Your task to perform on an android device: Open internet settings Image 0: 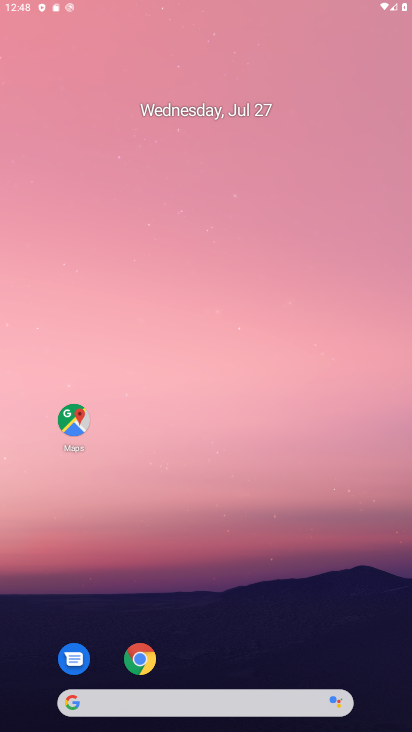
Step 0: click (257, 5)
Your task to perform on an android device: Open internet settings Image 1: 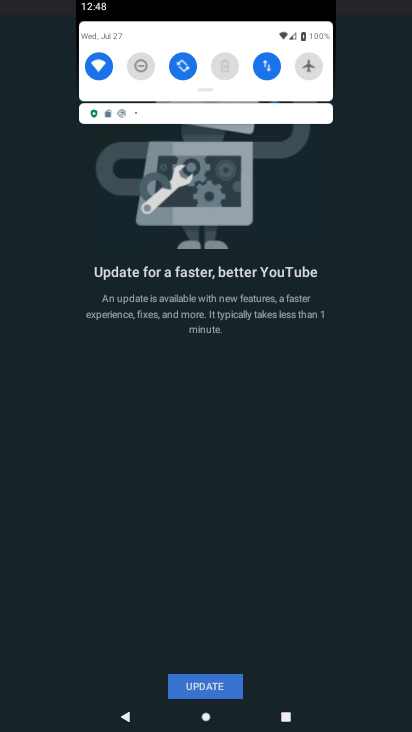
Step 1: press home button
Your task to perform on an android device: Open internet settings Image 2: 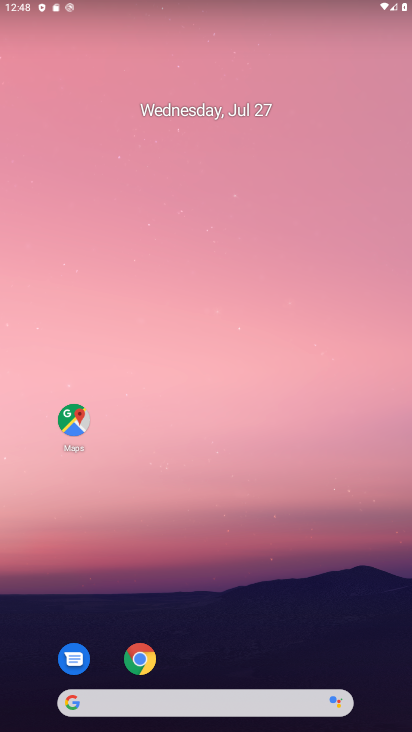
Step 2: drag from (256, 623) to (138, 30)
Your task to perform on an android device: Open internet settings Image 3: 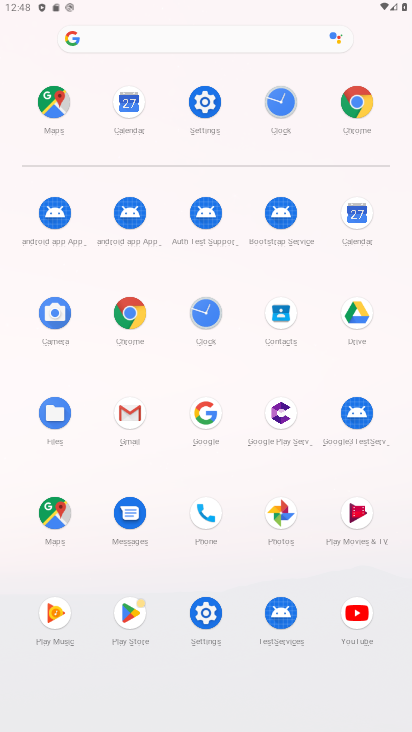
Step 3: click (214, 101)
Your task to perform on an android device: Open internet settings Image 4: 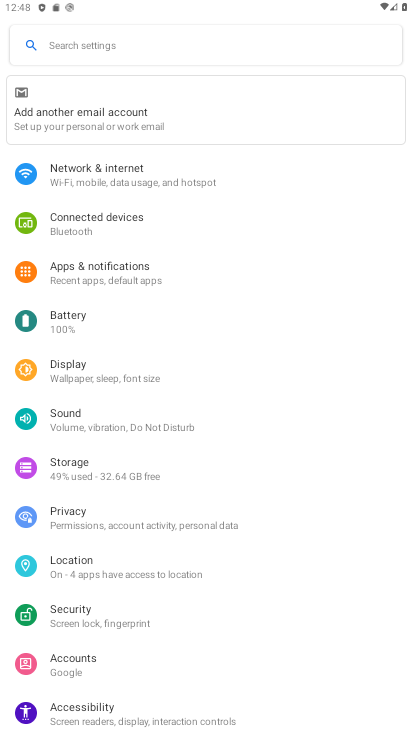
Step 4: click (104, 172)
Your task to perform on an android device: Open internet settings Image 5: 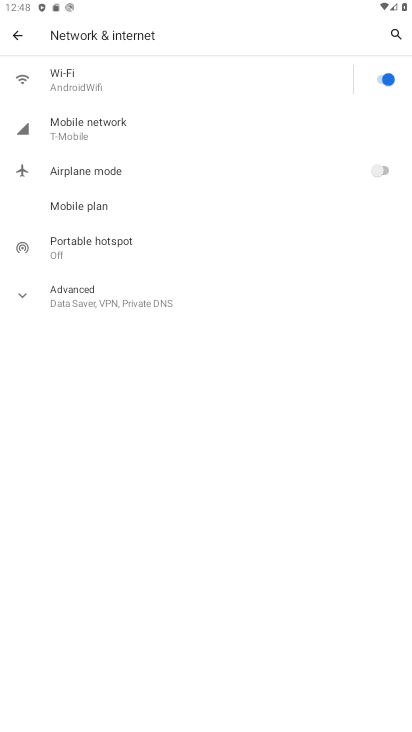
Step 5: click (138, 298)
Your task to perform on an android device: Open internet settings Image 6: 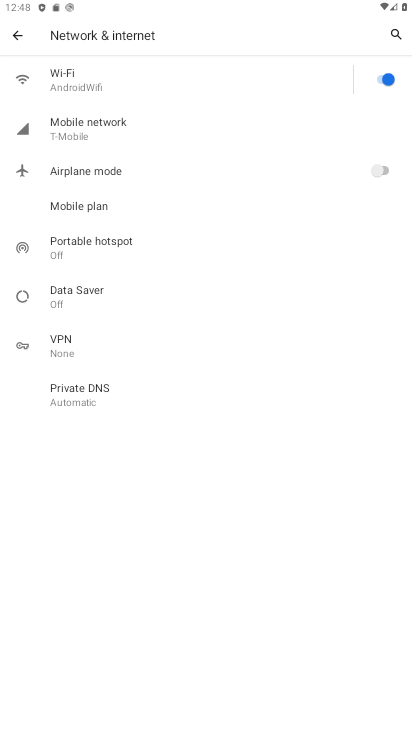
Step 6: task complete